Your task to perform on an android device: Go to notification settings Image 0: 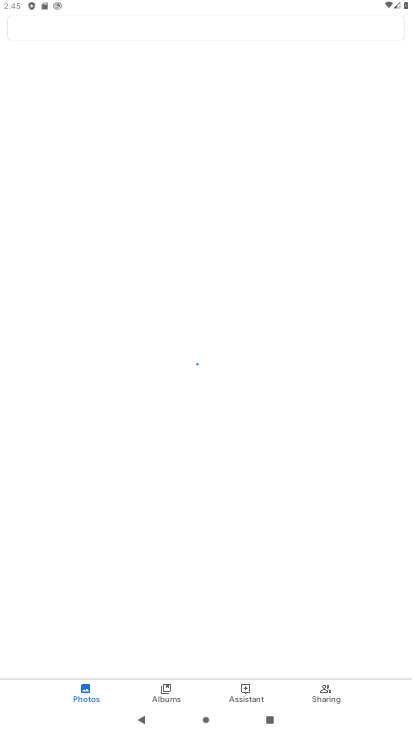
Step 0: press home button
Your task to perform on an android device: Go to notification settings Image 1: 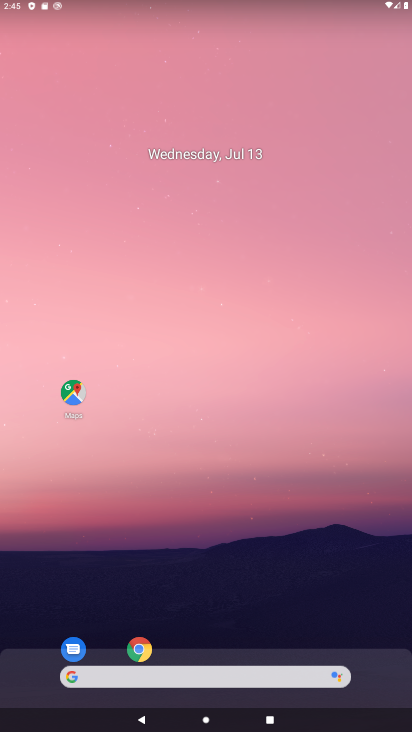
Step 1: drag from (227, 659) to (274, 7)
Your task to perform on an android device: Go to notification settings Image 2: 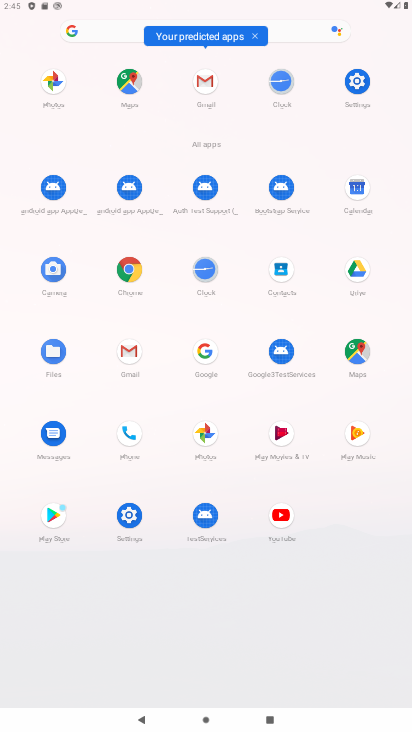
Step 2: click (360, 76)
Your task to perform on an android device: Go to notification settings Image 3: 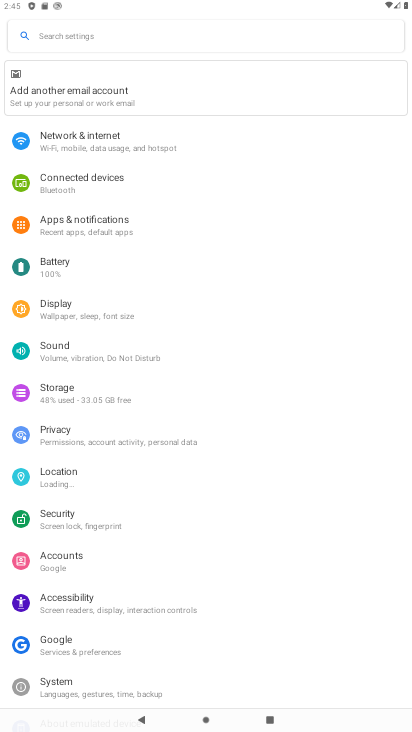
Step 3: click (138, 220)
Your task to perform on an android device: Go to notification settings Image 4: 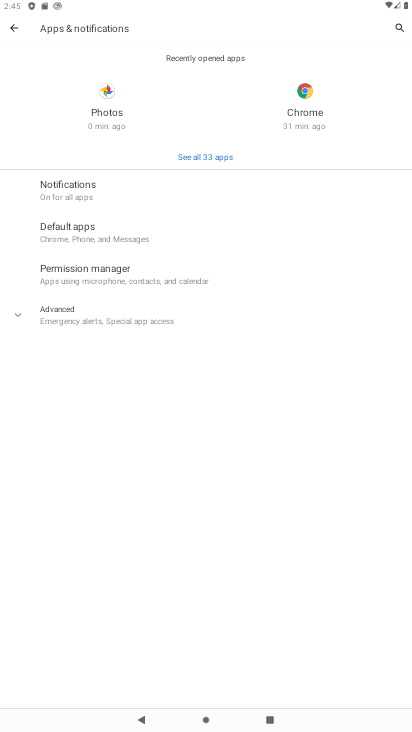
Step 4: click (107, 186)
Your task to perform on an android device: Go to notification settings Image 5: 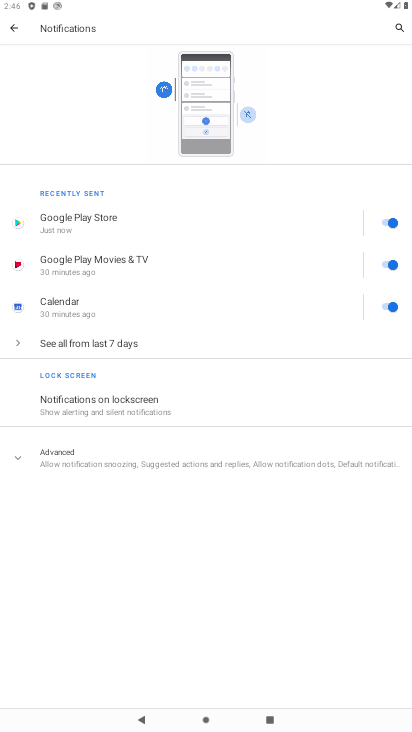
Step 5: click (16, 453)
Your task to perform on an android device: Go to notification settings Image 6: 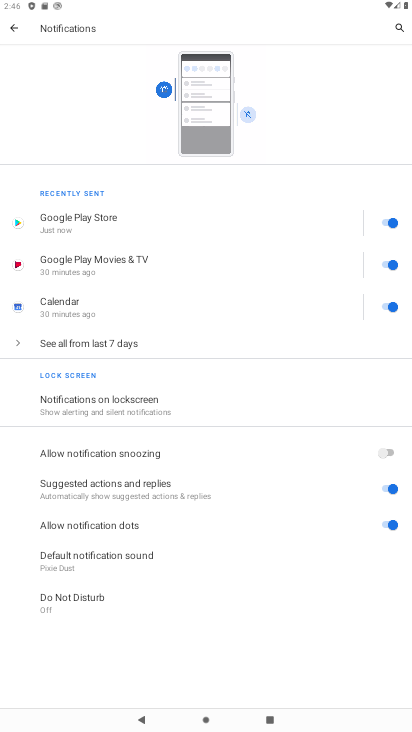
Step 6: task complete